Your task to perform on an android device: Open calendar and show me the second week of next month Image 0: 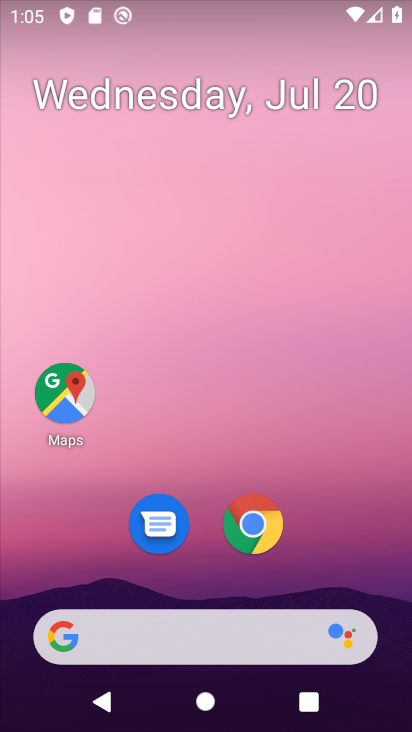
Step 0: drag from (333, 520) to (381, 30)
Your task to perform on an android device: Open calendar and show me the second week of next month Image 1: 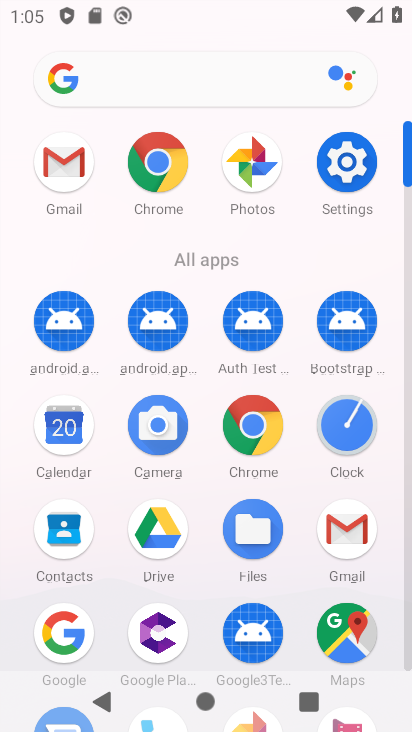
Step 1: click (76, 425)
Your task to perform on an android device: Open calendar and show me the second week of next month Image 2: 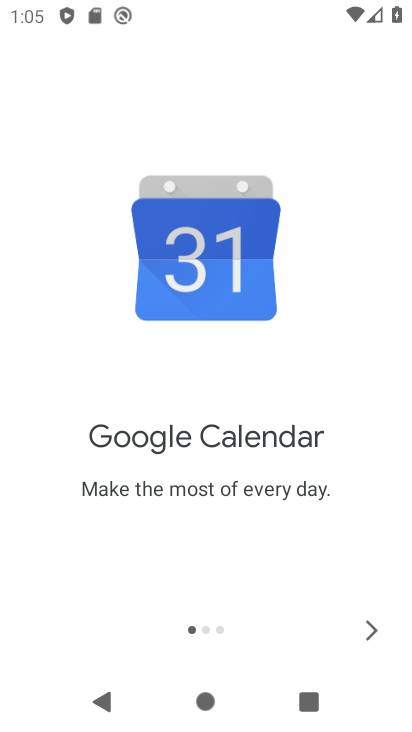
Step 2: click (366, 624)
Your task to perform on an android device: Open calendar and show me the second week of next month Image 3: 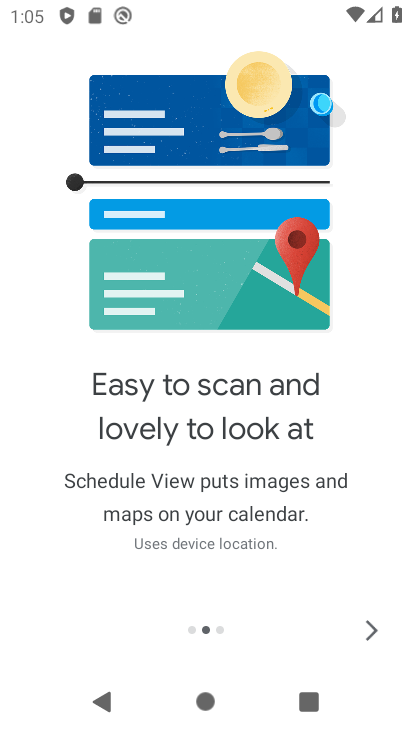
Step 3: click (366, 624)
Your task to perform on an android device: Open calendar and show me the second week of next month Image 4: 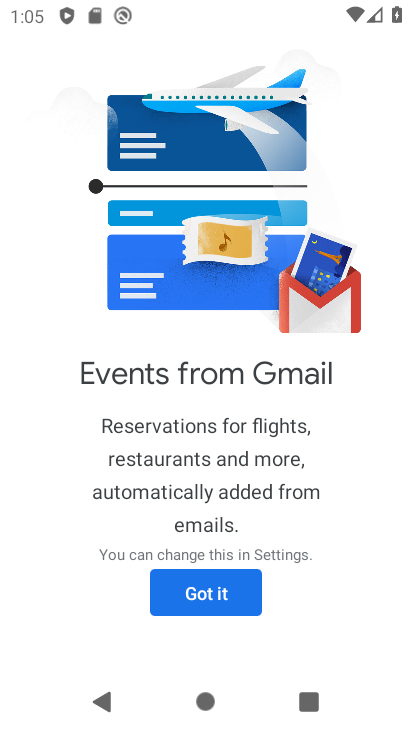
Step 4: click (252, 594)
Your task to perform on an android device: Open calendar and show me the second week of next month Image 5: 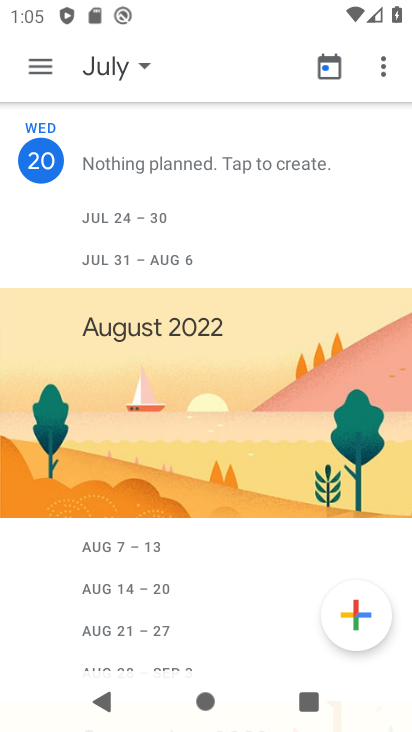
Step 5: click (46, 64)
Your task to perform on an android device: Open calendar and show me the second week of next month Image 6: 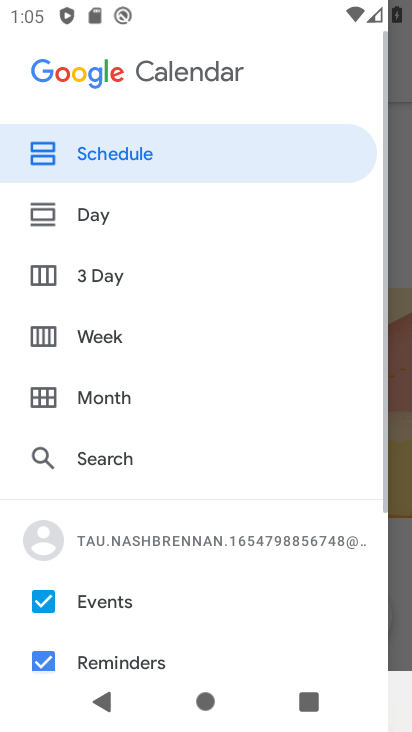
Step 6: click (76, 328)
Your task to perform on an android device: Open calendar and show me the second week of next month Image 7: 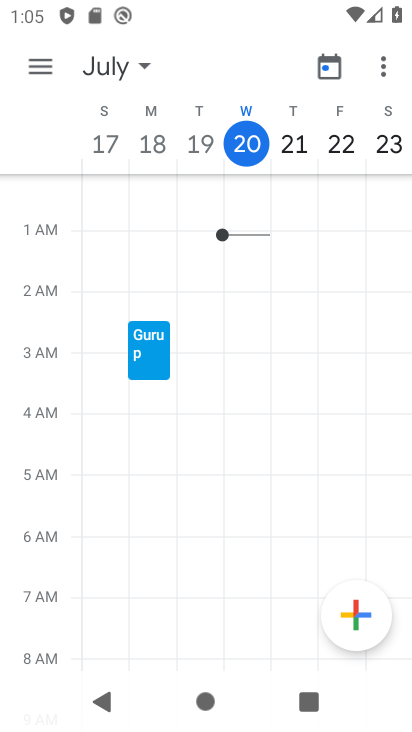
Step 7: task complete